Your task to perform on an android device: turn smart compose on in the gmail app Image 0: 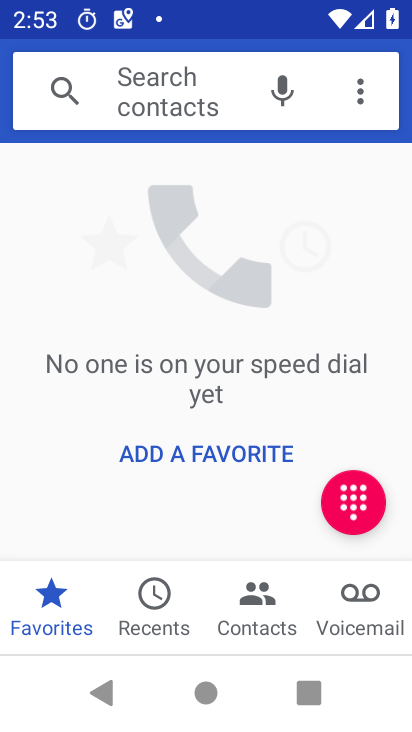
Step 0: drag from (192, 517) to (213, 266)
Your task to perform on an android device: turn smart compose on in the gmail app Image 1: 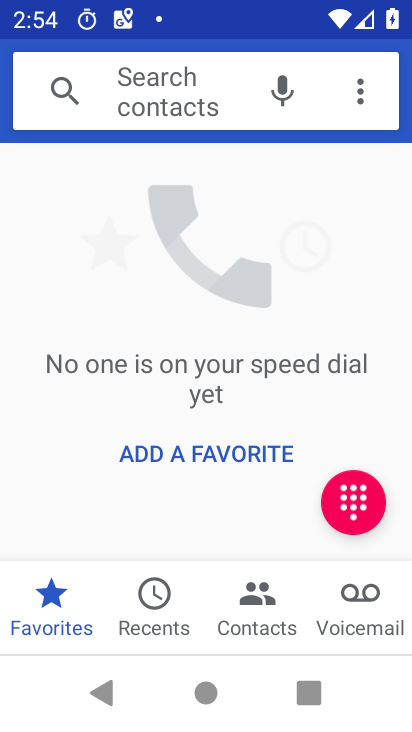
Step 1: drag from (221, 547) to (222, 246)
Your task to perform on an android device: turn smart compose on in the gmail app Image 2: 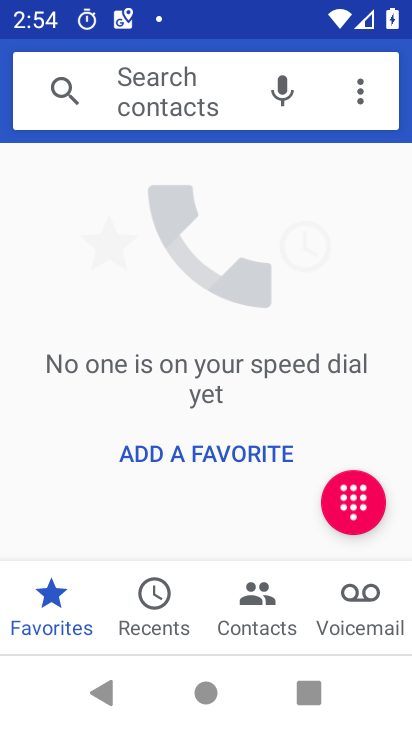
Step 2: press home button
Your task to perform on an android device: turn smart compose on in the gmail app Image 3: 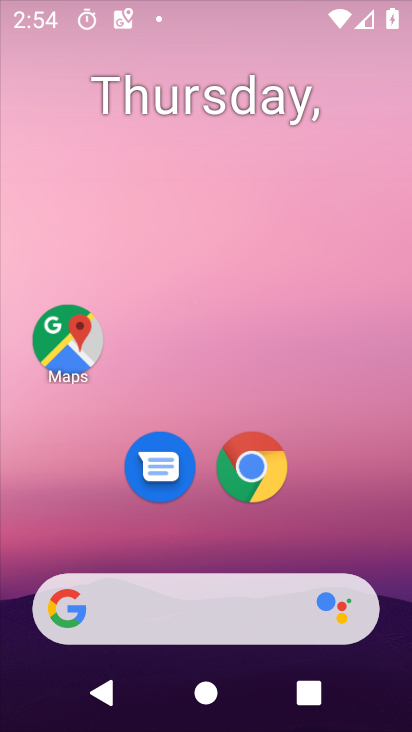
Step 3: drag from (229, 565) to (216, 295)
Your task to perform on an android device: turn smart compose on in the gmail app Image 4: 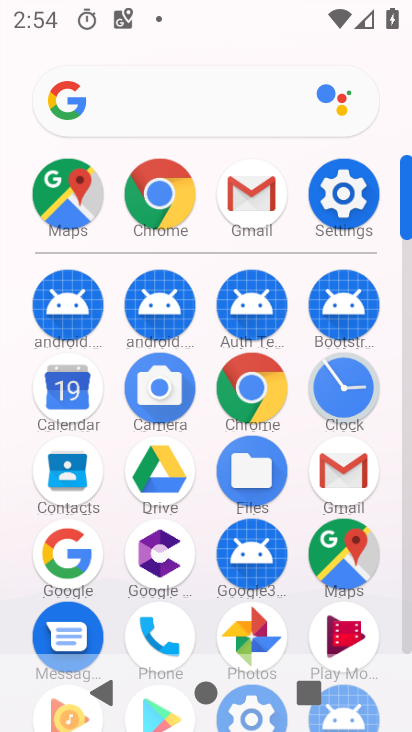
Step 4: drag from (191, 626) to (231, 339)
Your task to perform on an android device: turn smart compose on in the gmail app Image 5: 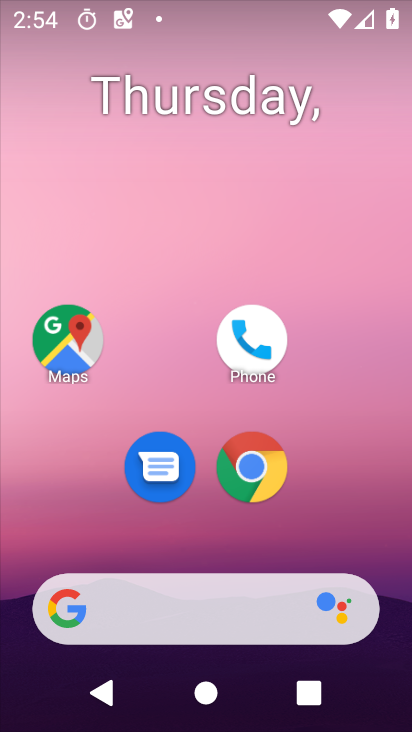
Step 5: drag from (213, 562) to (211, 273)
Your task to perform on an android device: turn smart compose on in the gmail app Image 6: 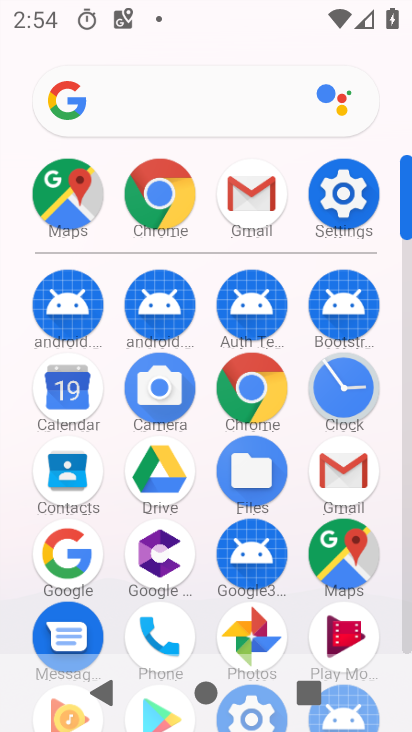
Step 6: drag from (204, 618) to (202, 244)
Your task to perform on an android device: turn smart compose on in the gmail app Image 7: 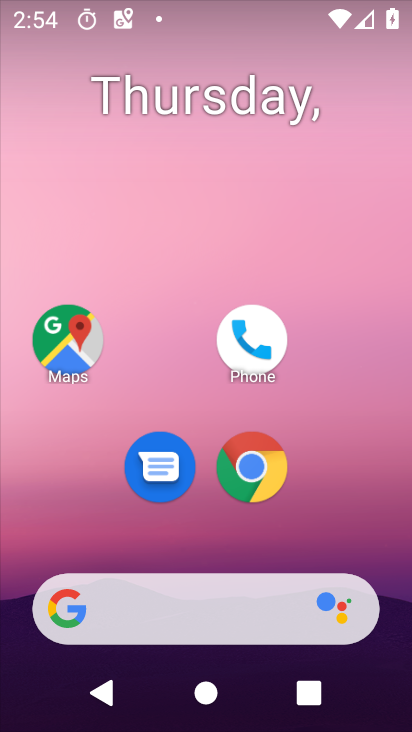
Step 7: drag from (173, 541) to (191, 30)
Your task to perform on an android device: turn smart compose on in the gmail app Image 8: 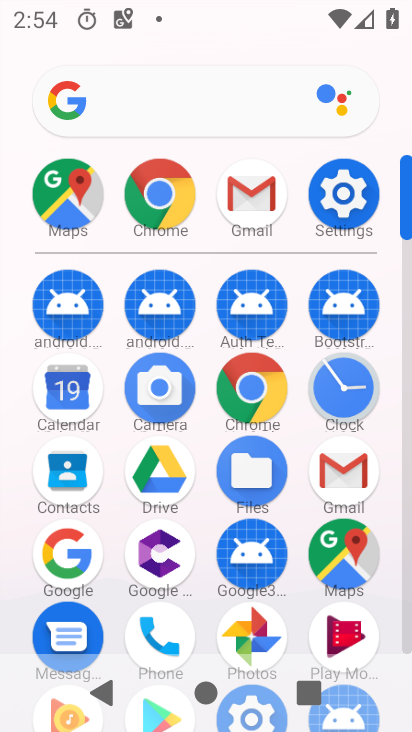
Step 8: drag from (207, 616) to (221, 136)
Your task to perform on an android device: turn smart compose on in the gmail app Image 9: 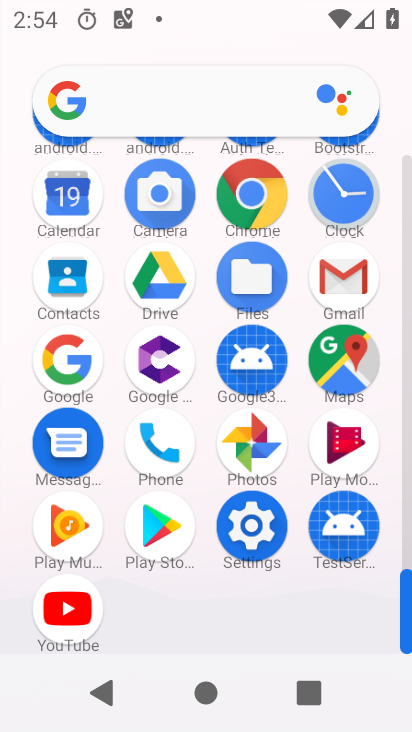
Step 9: click (340, 281)
Your task to perform on an android device: turn smart compose on in the gmail app Image 10: 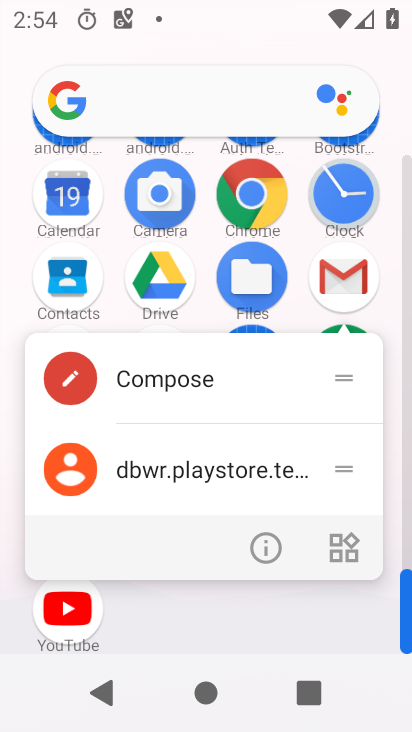
Step 10: click (155, 476)
Your task to perform on an android device: turn smart compose on in the gmail app Image 11: 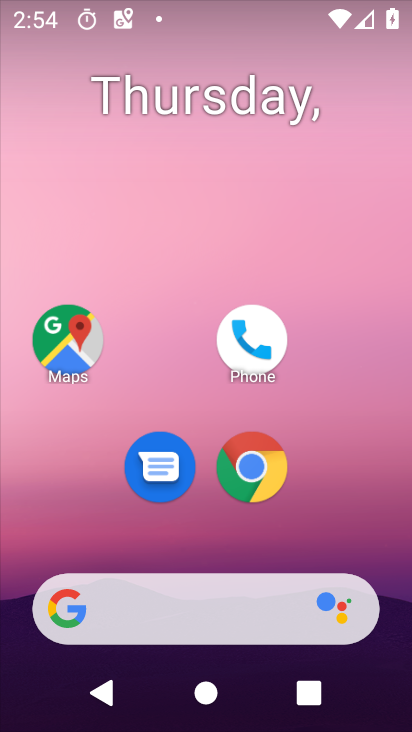
Step 11: drag from (184, 525) to (192, 160)
Your task to perform on an android device: turn smart compose on in the gmail app Image 12: 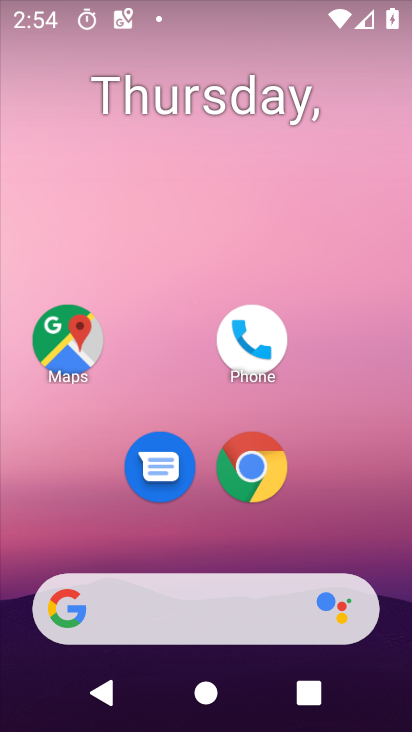
Step 12: drag from (206, 558) to (197, 104)
Your task to perform on an android device: turn smart compose on in the gmail app Image 13: 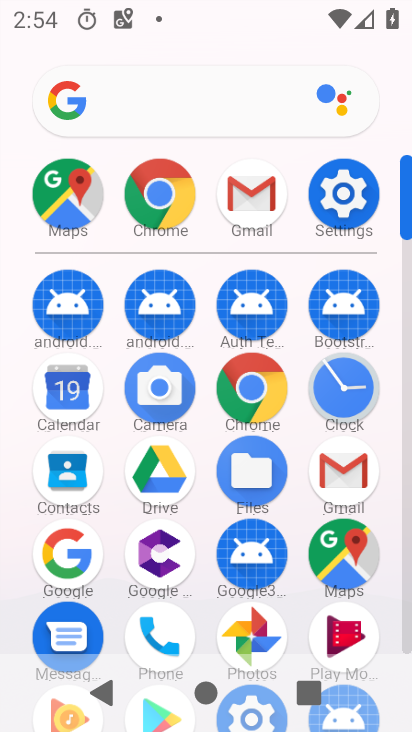
Step 13: click (349, 458)
Your task to perform on an android device: turn smart compose on in the gmail app Image 14: 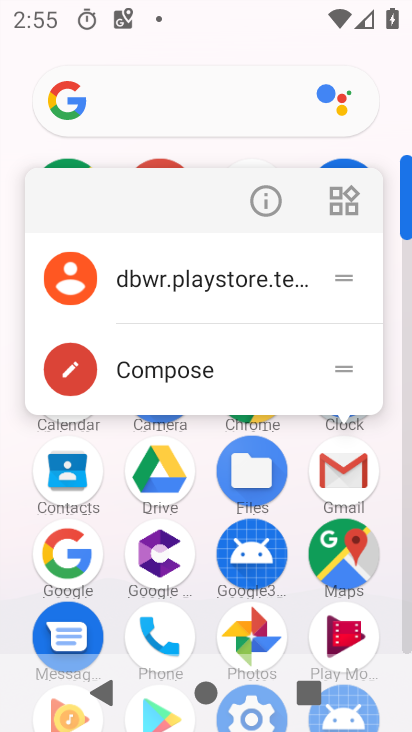
Step 14: click (174, 286)
Your task to perform on an android device: turn smart compose on in the gmail app Image 15: 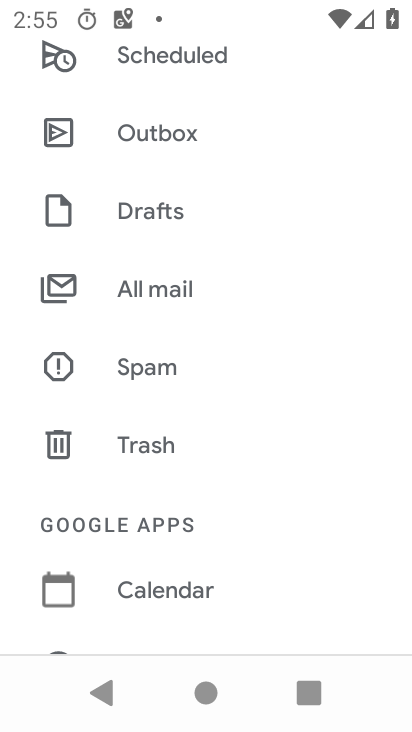
Step 15: drag from (168, 553) to (257, 159)
Your task to perform on an android device: turn smart compose on in the gmail app Image 16: 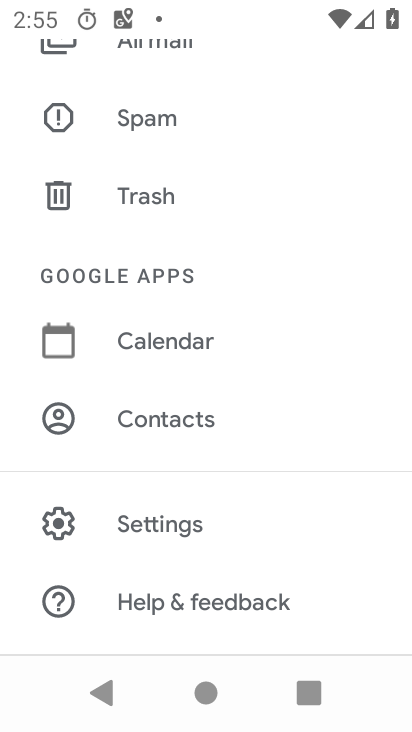
Step 16: click (168, 510)
Your task to perform on an android device: turn smart compose on in the gmail app Image 17: 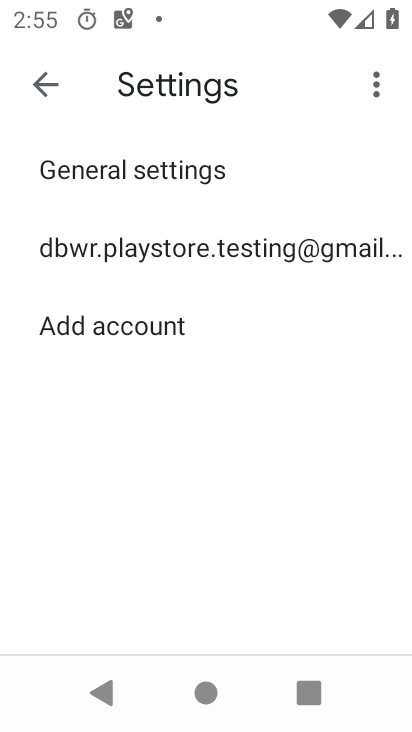
Step 17: click (209, 253)
Your task to perform on an android device: turn smart compose on in the gmail app Image 18: 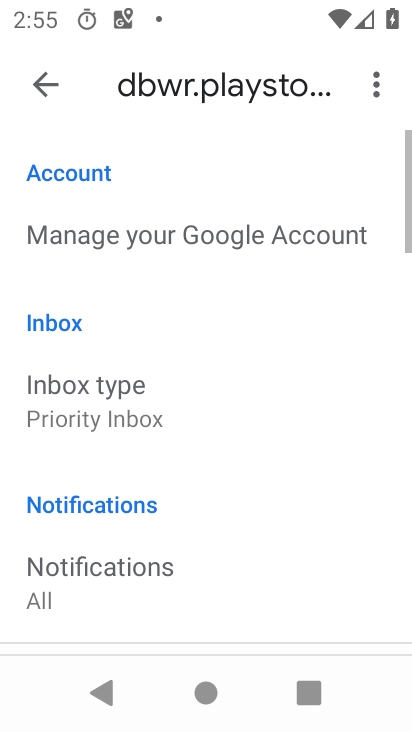
Step 18: task complete